Your task to perform on an android device: set the stopwatch Image 0: 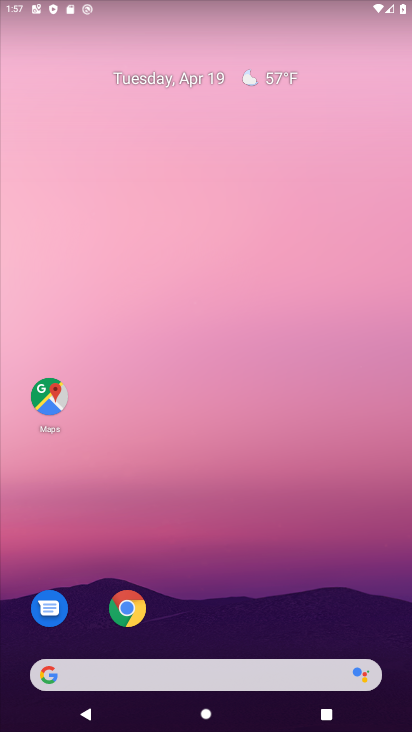
Step 0: drag from (215, 636) to (198, 274)
Your task to perform on an android device: set the stopwatch Image 1: 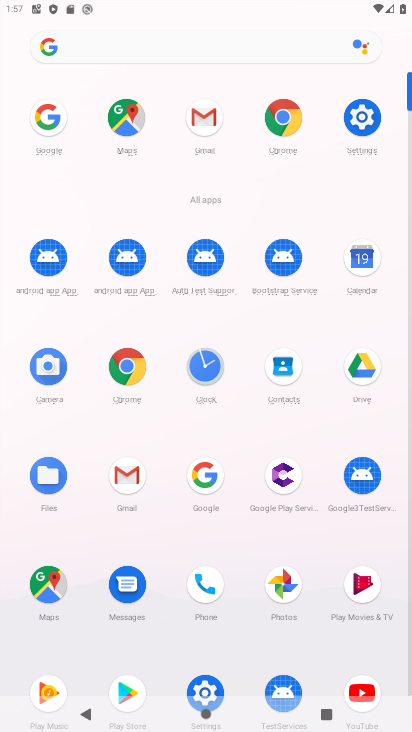
Step 1: click (201, 362)
Your task to perform on an android device: set the stopwatch Image 2: 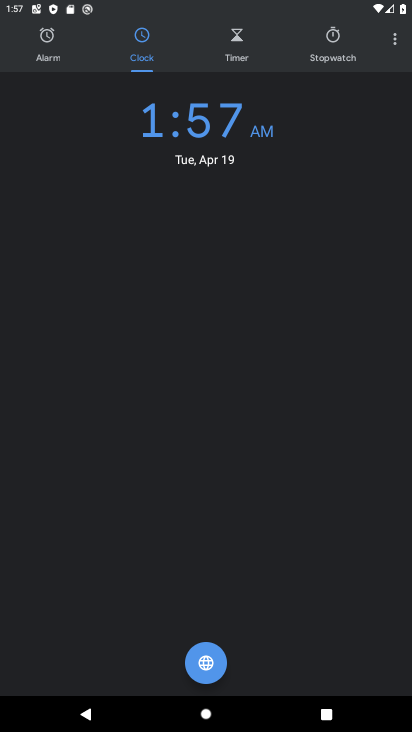
Step 2: click (323, 52)
Your task to perform on an android device: set the stopwatch Image 3: 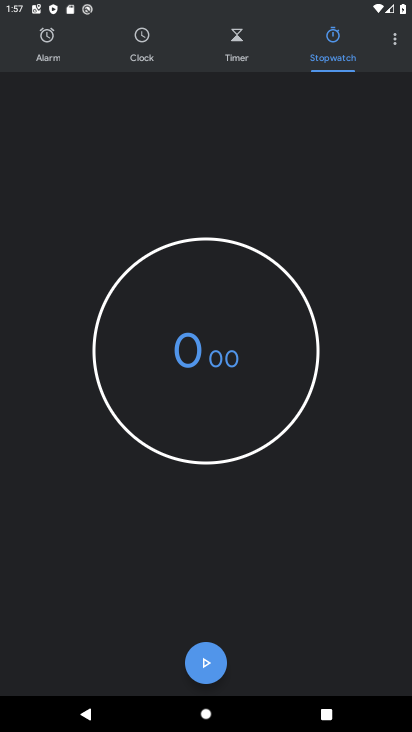
Step 3: click (203, 664)
Your task to perform on an android device: set the stopwatch Image 4: 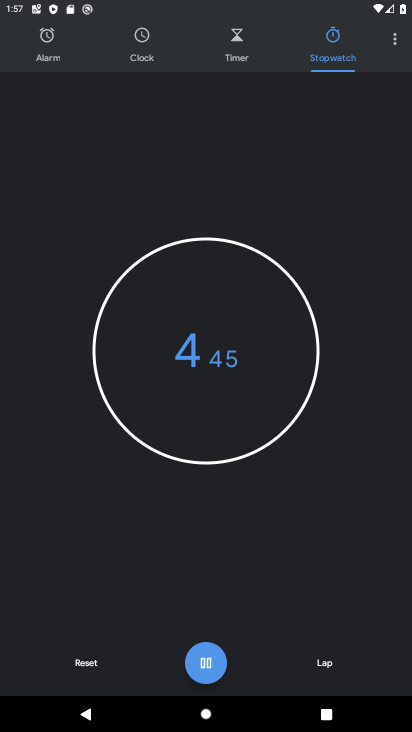
Step 4: click (325, 665)
Your task to perform on an android device: set the stopwatch Image 5: 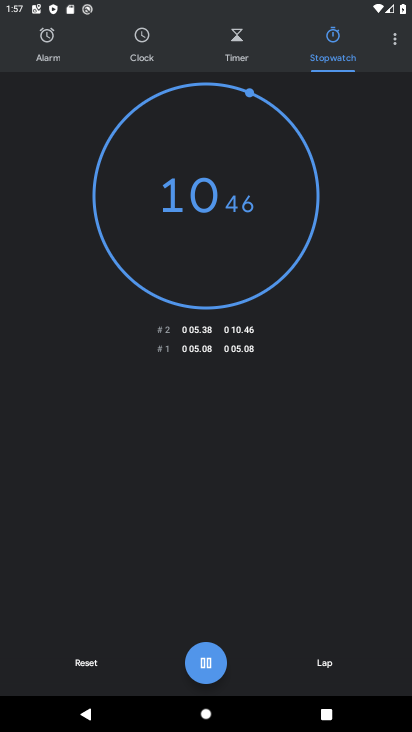
Step 5: click (204, 665)
Your task to perform on an android device: set the stopwatch Image 6: 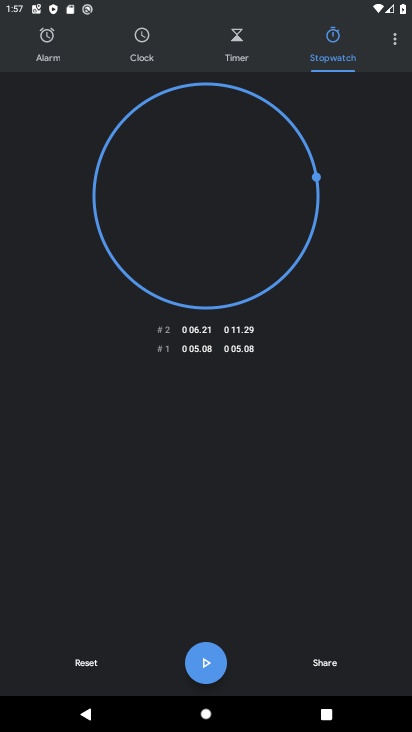
Step 6: task complete